Your task to perform on an android device: toggle notifications settings in the gmail app Image 0: 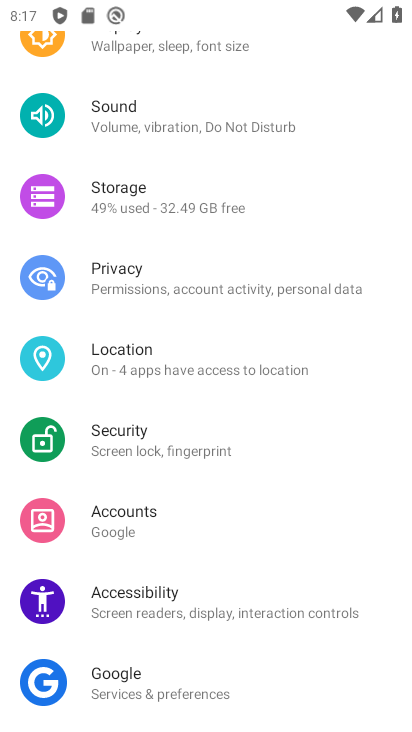
Step 0: drag from (319, 575) to (225, 279)
Your task to perform on an android device: toggle notifications settings in the gmail app Image 1: 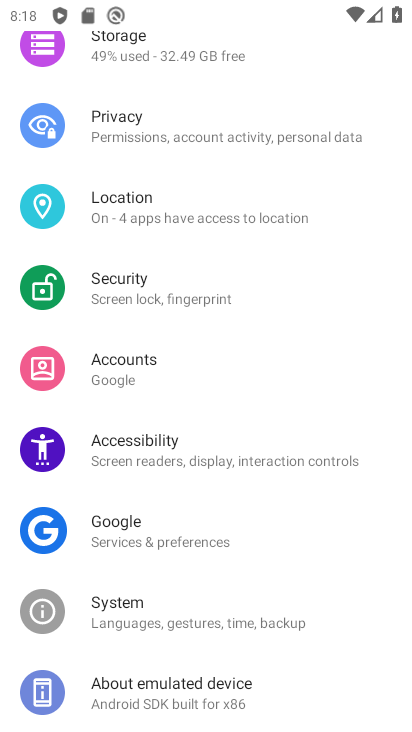
Step 1: drag from (225, 285) to (260, 655)
Your task to perform on an android device: toggle notifications settings in the gmail app Image 2: 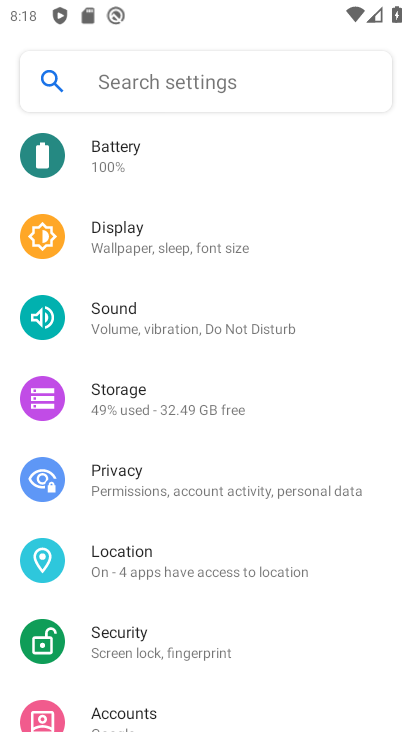
Step 2: drag from (228, 268) to (249, 585)
Your task to perform on an android device: toggle notifications settings in the gmail app Image 3: 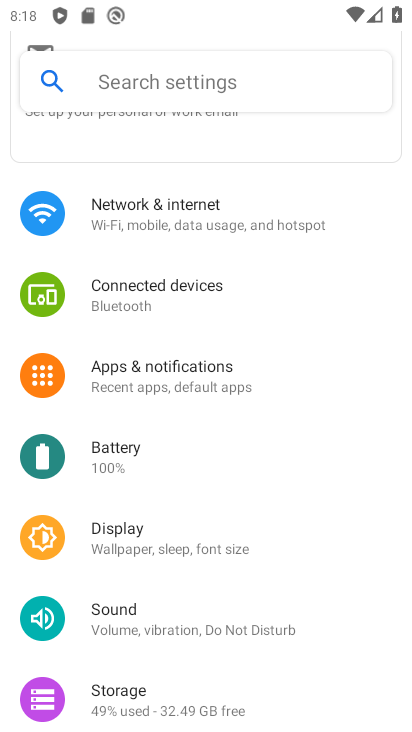
Step 3: click (197, 378)
Your task to perform on an android device: toggle notifications settings in the gmail app Image 4: 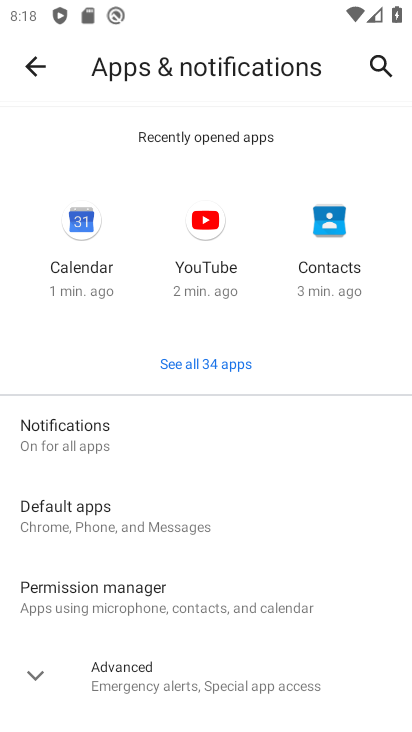
Step 4: click (101, 432)
Your task to perform on an android device: toggle notifications settings in the gmail app Image 5: 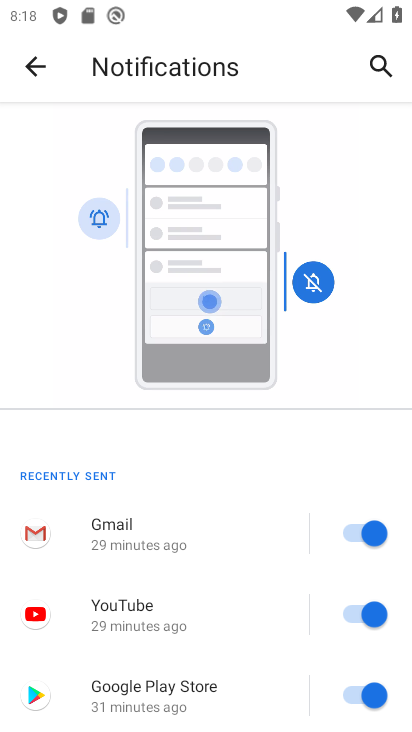
Step 5: drag from (233, 620) to (231, 272)
Your task to perform on an android device: toggle notifications settings in the gmail app Image 6: 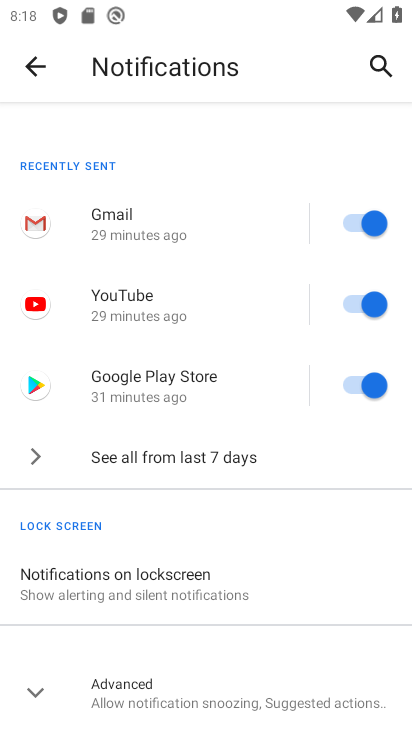
Step 6: click (354, 218)
Your task to perform on an android device: toggle notifications settings in the gmail app Image 7: 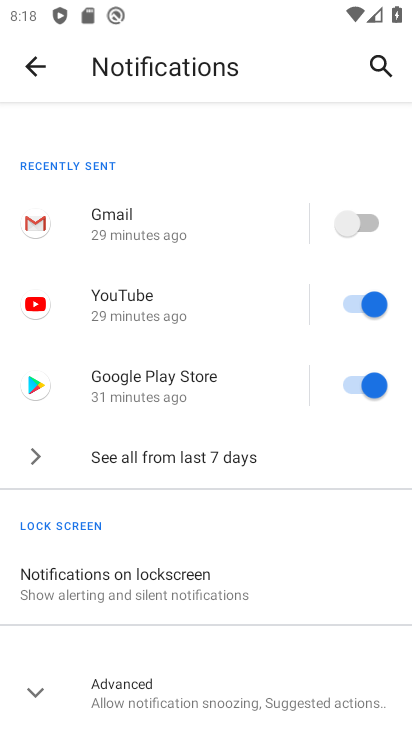
Step 7: task complete